Your task to perform on an android device: Empty the shopping cart on costco.com. Search for logitech g pro on costco.com, select the first entry, add it to the cart, then select checkout. Image 0: 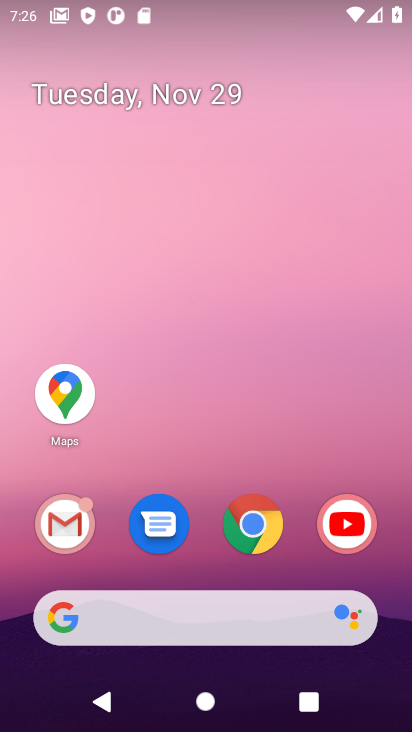
Step 0: click (256, 530)
Your task to perform on an android device: Empty the shopping cart on costco.com. Search for logitech g pro on costco.com, select the first entry, add it to the cart, then select checkout. Image 1: 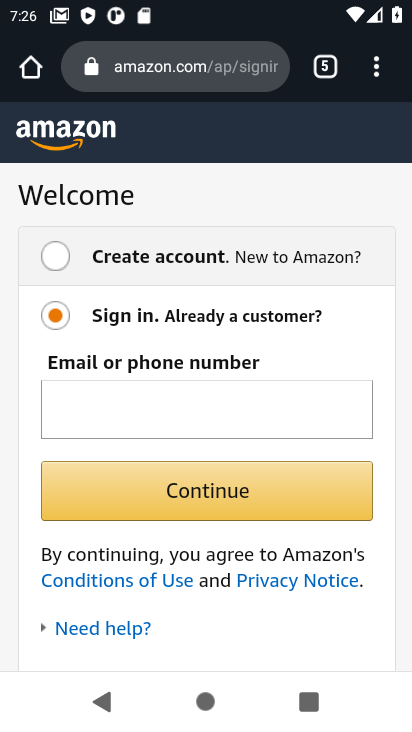
Step 1: click (189, 75)
Your task to perform on an android device: Empty the shopping cart on costco.com. Search for logitech g pro on costco.com, select the first entry, add it to the cart, then select checkout. Image 2: 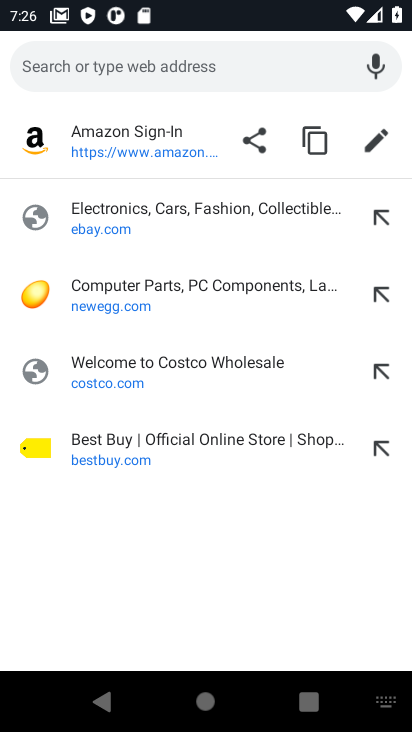
Step 2: click (99, 359)
Your task to perform on an android device: Empty the shopping cart on costco.com. Search for logitech g pro on costco.com, select the first entry, add it to the cart, then select checkout. Image 3: 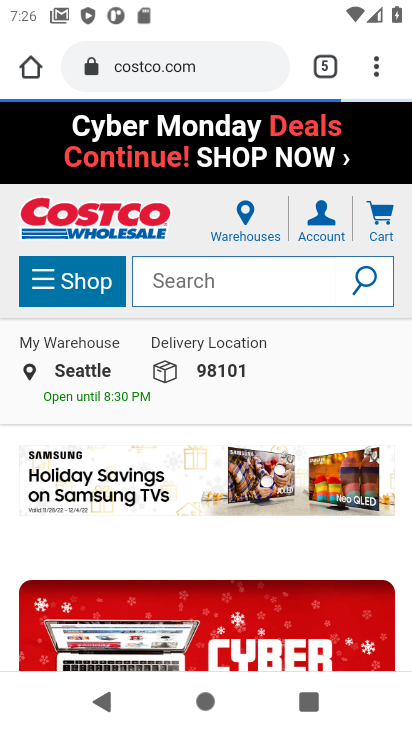
Step 3: click (381, 226)
Your task to perform on an android device: Empty the shopping cart on costco.com. Search for logitech g pro on costco.com, select the first entry, add it to the cart, then select checkout. Image 4: 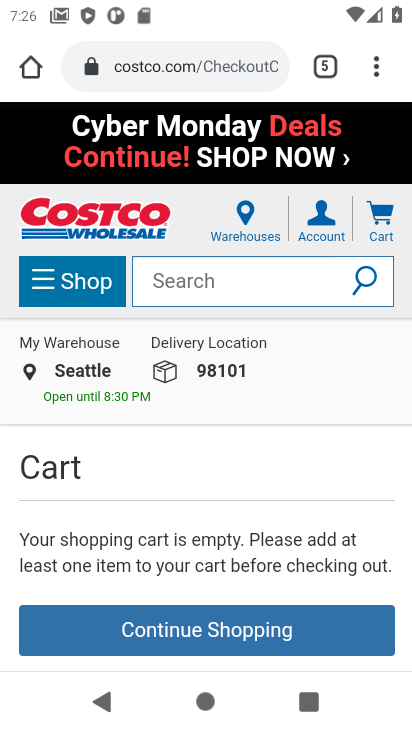
Step 4: click (181, 279)
Your task to perform on an android device: Empty the shopping cart on costco.com. Search for logitech g pro on costco.com, select the first entry, add it to the cart, then select checkout. Image 5: 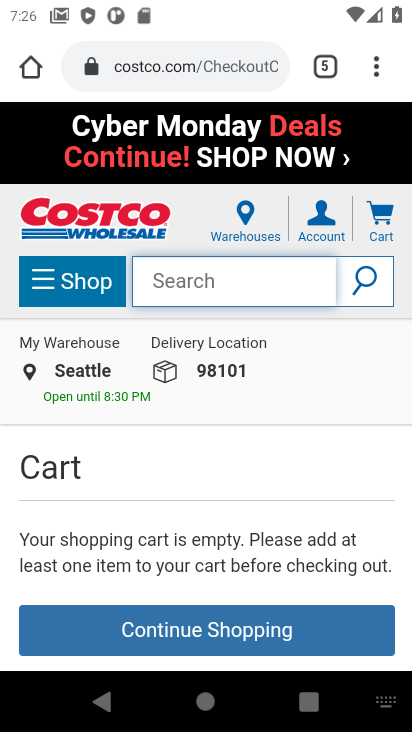
Step 5: type " logitech g pro"
Your task to perform on an android device: Empty the shopping cart on costco.com. Search for logitech g pro on costco.com, select the first entry, add it to the cart, then select checkout. Image 6: 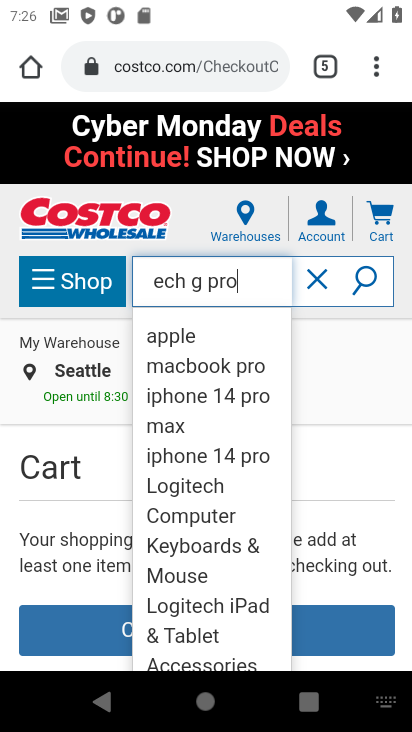
Step 6: click (365, 285)
Your task to perform on an android device: Empty the shopping cart on costco.com. Search for logitech g pro on costco.com, select the first entry, add it to the cart, then select checkout. Image 7: 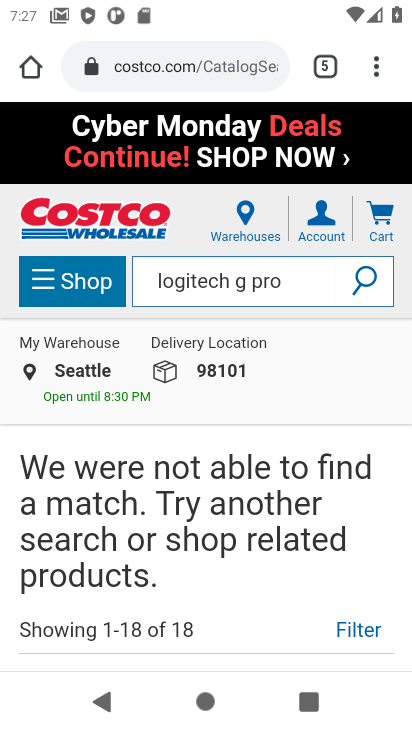
Step 7: task complete